Your task to perform on an android device: Show me productivity apps on the Play Store Image 0: 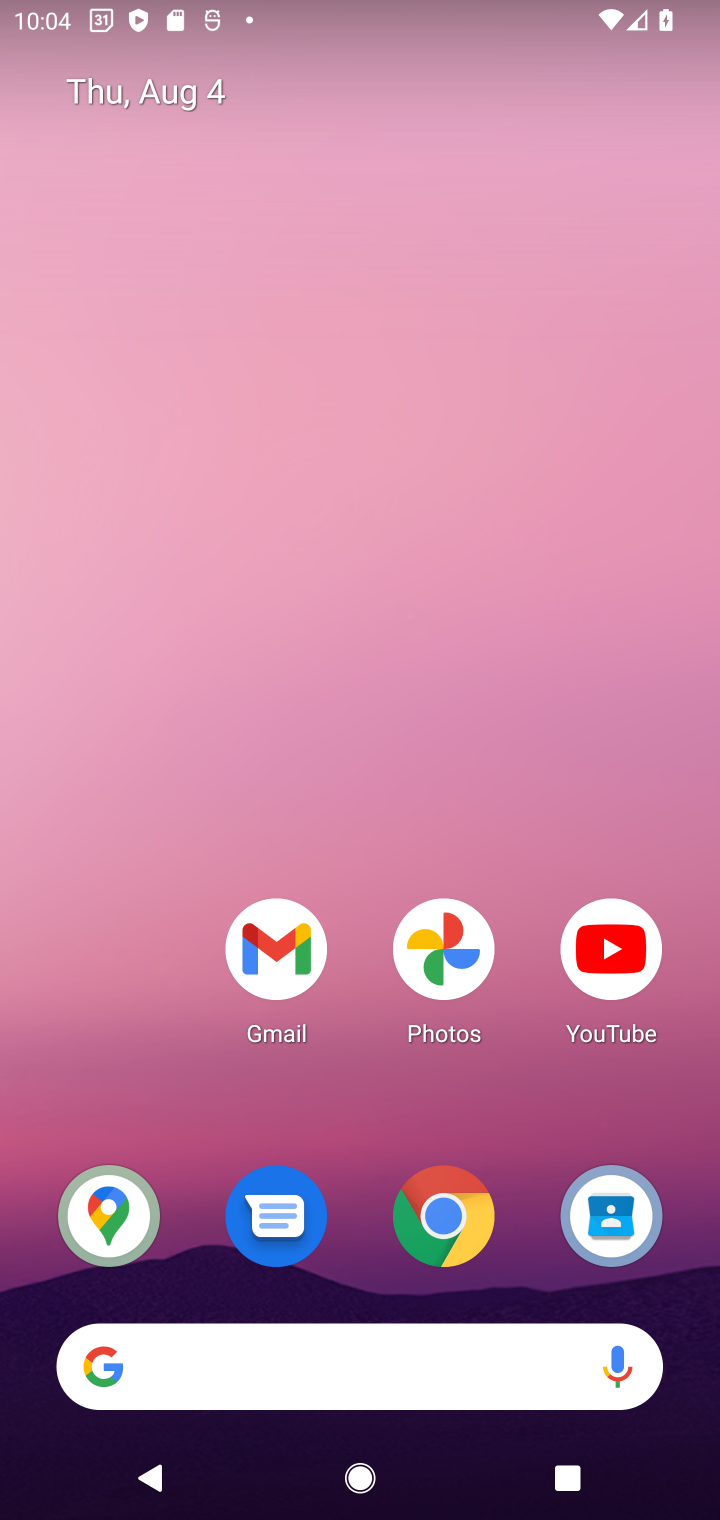
Step 0: drag from (387, 1346) to (438, 269)
Your task to perform on an android device: Show me productivity apps on the Play Store Image 1: 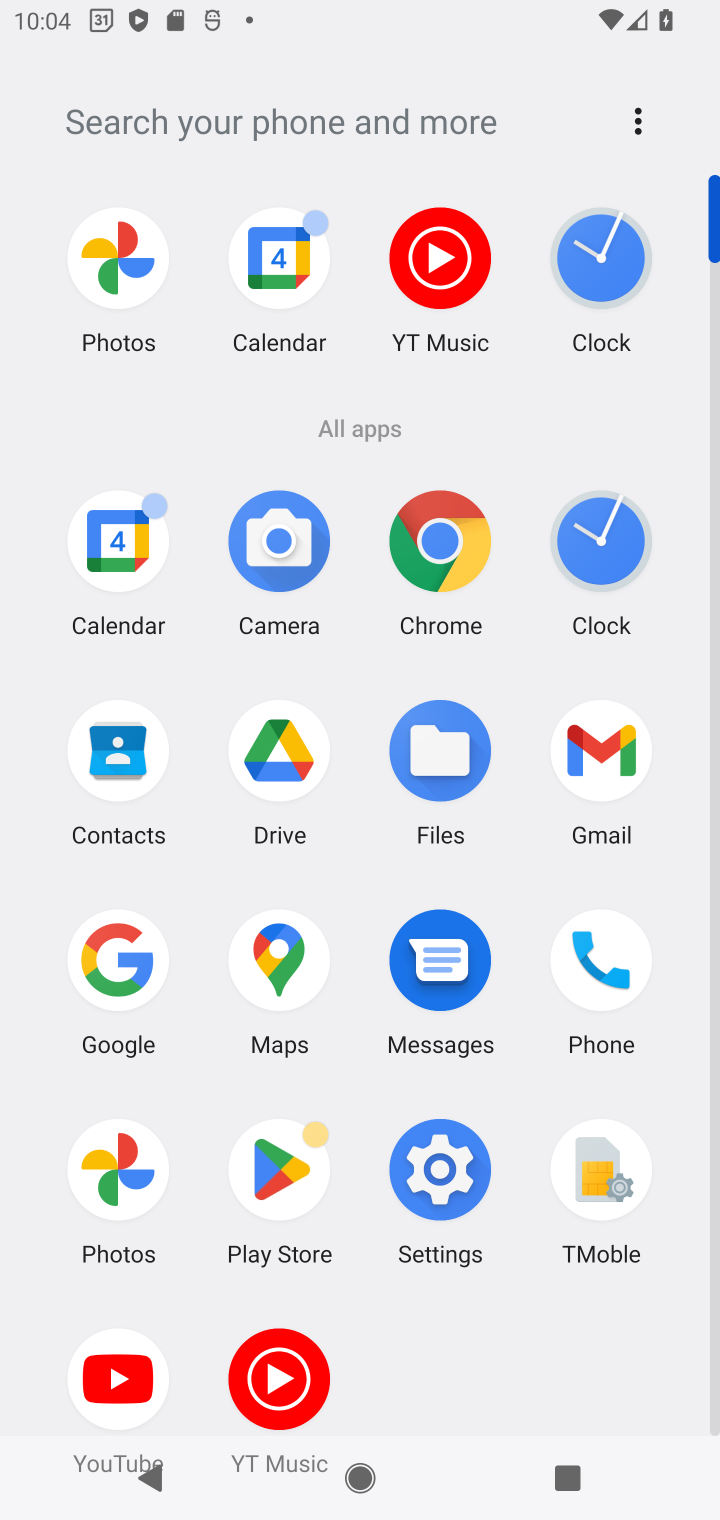
Step 1: click (278, 1181)
Your task to perform on an android device: Show me productivity apps on the Play Store Image 2: 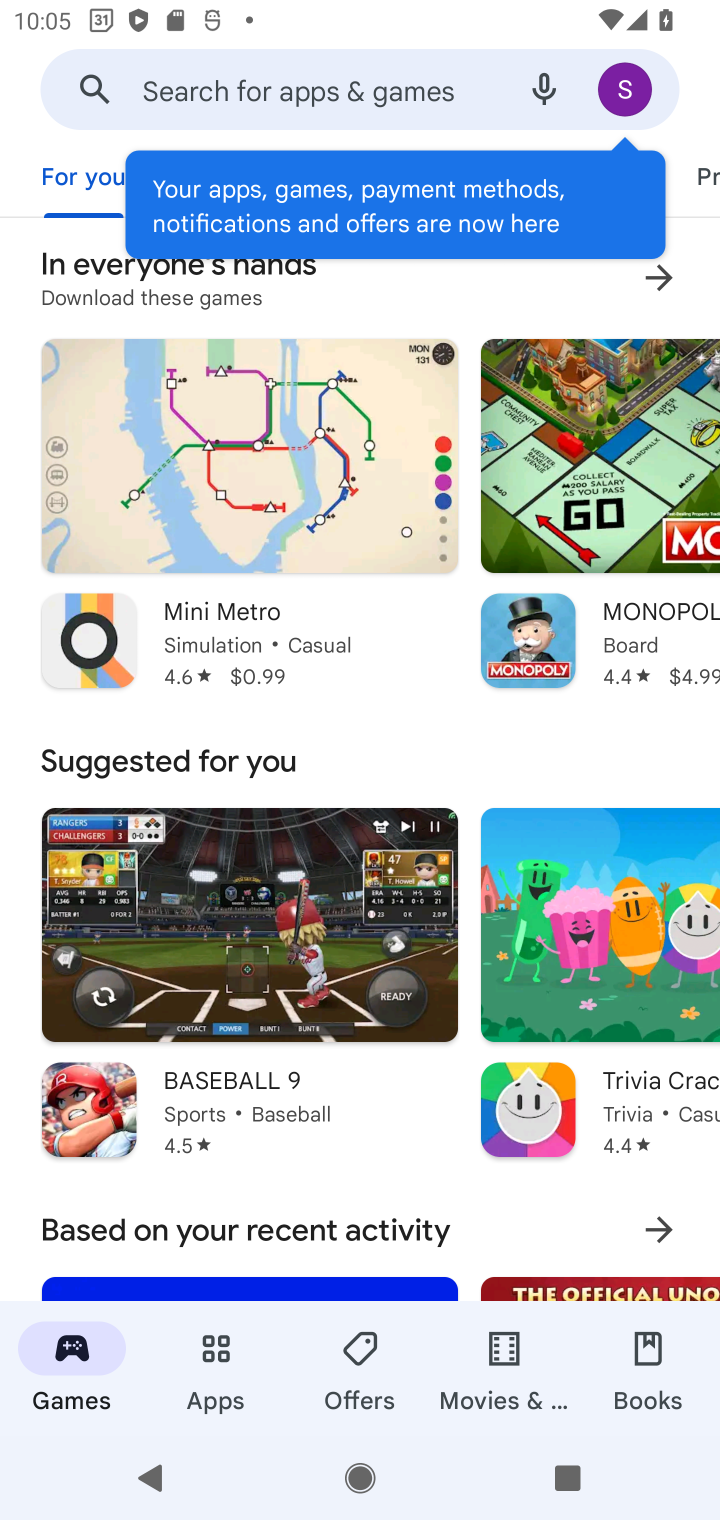
Step 2: click (238, 1358)
Your task to perform on an android device: Show me productivity apps on the Play Store Image 3: 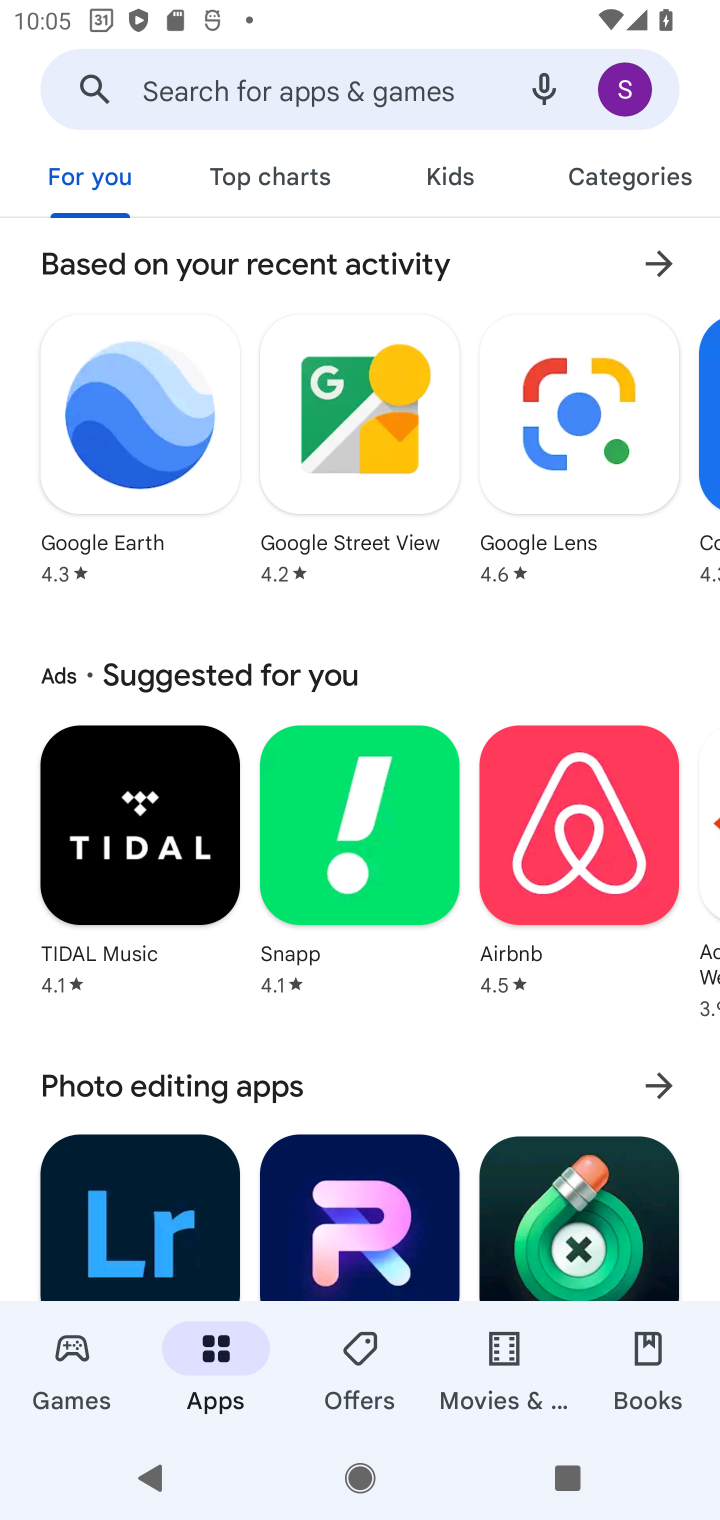
Step 3: click (652, 171)
Your task to perform on an android device: Show me productivity apps on the Play Store Image 4: 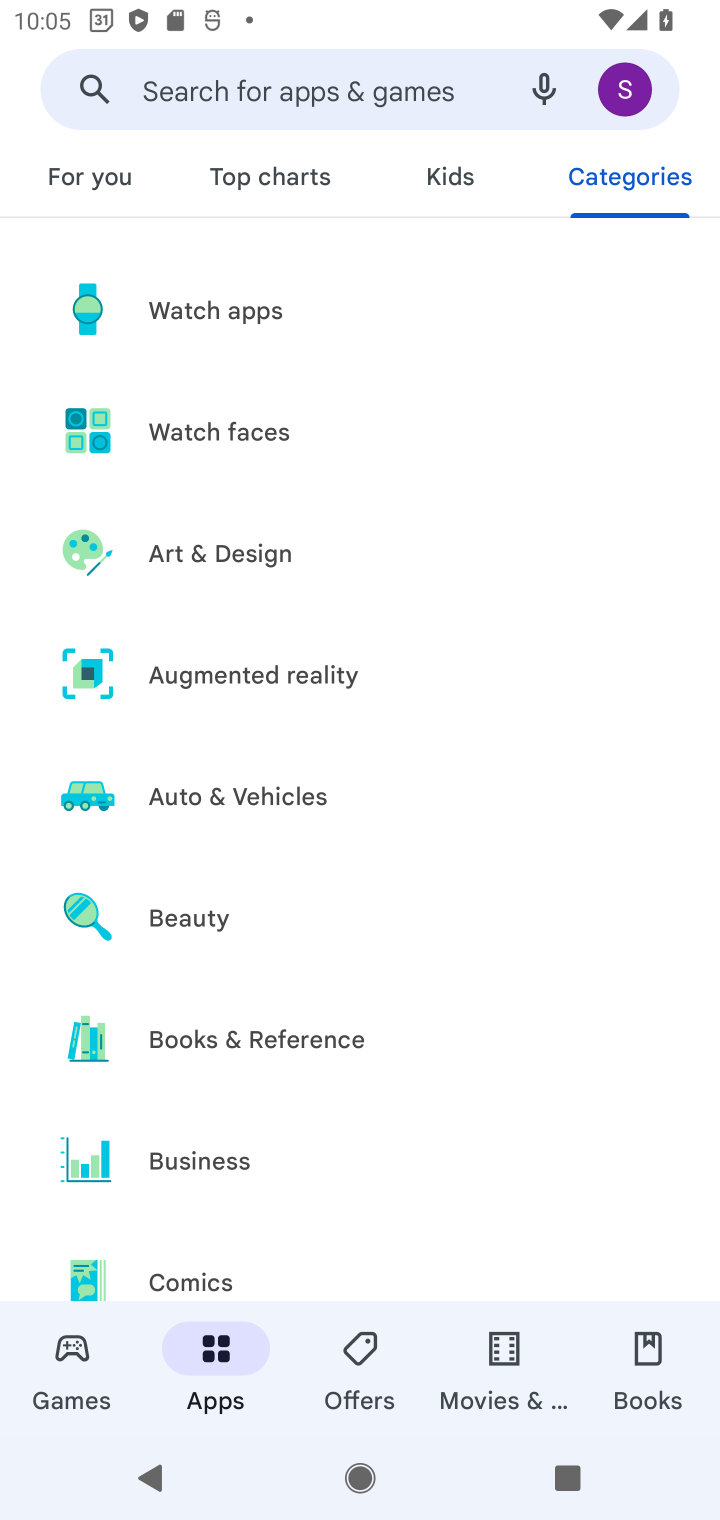
Step 4: drag from (242, 1095) to (272, 847)
Your task to perform on an android device: Show me productivity apps on the Play Store Image 5: 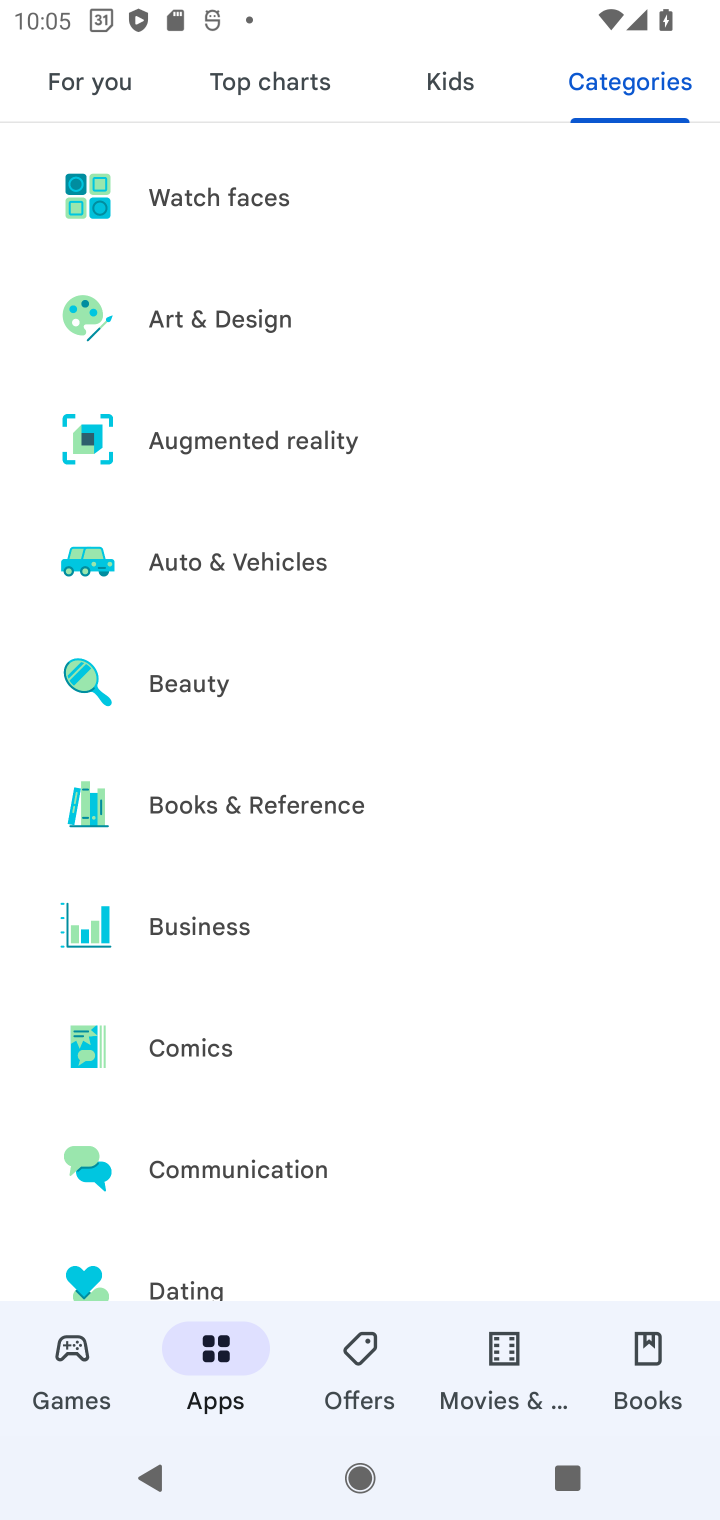
Step 5: drag from (240, 1184) to (301, 914)
Your task to perform on an android device: Show me productivity apps on the Play Store Image 6: 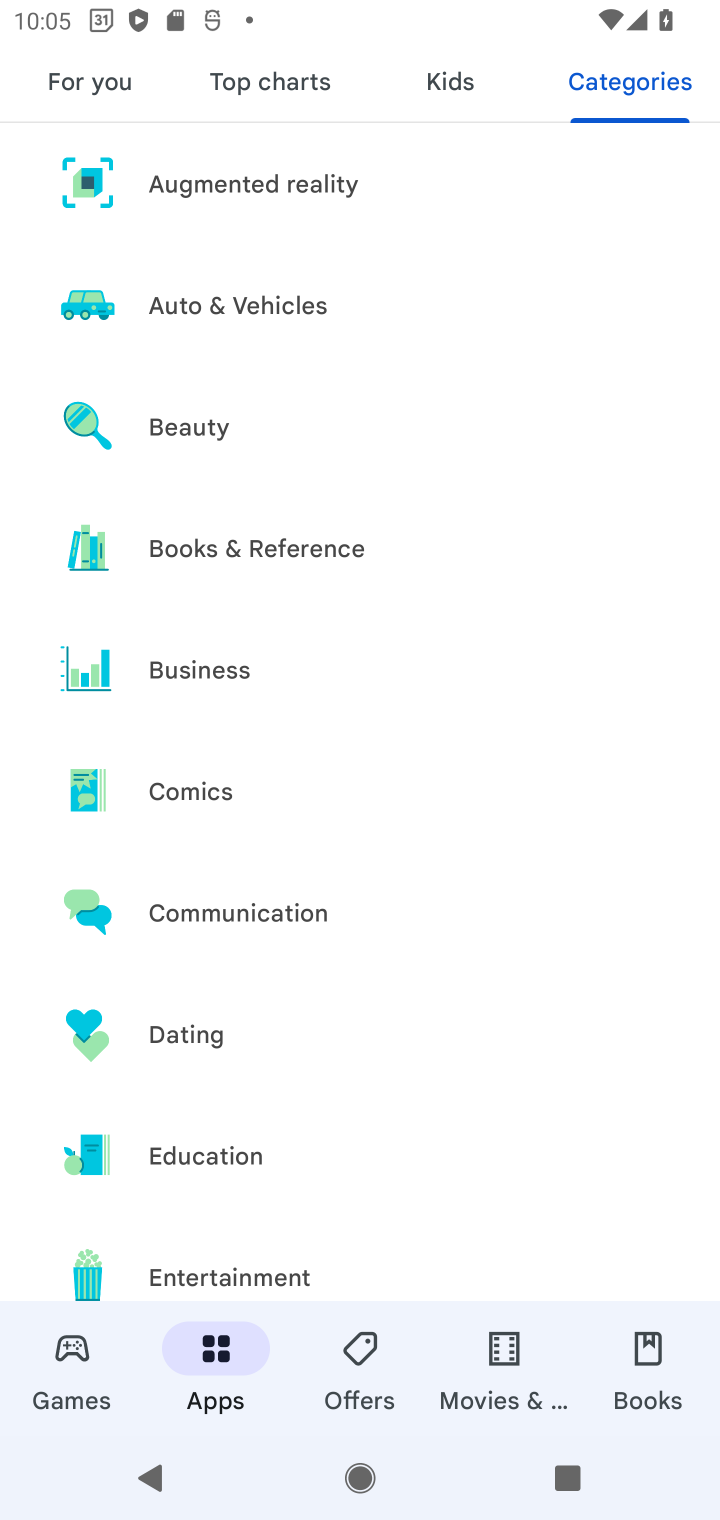
Step 6: drag from (205, 1201) to (280, 945)
Your task to perform on an android device: Show me productivity apps on the Play Store Image 7: 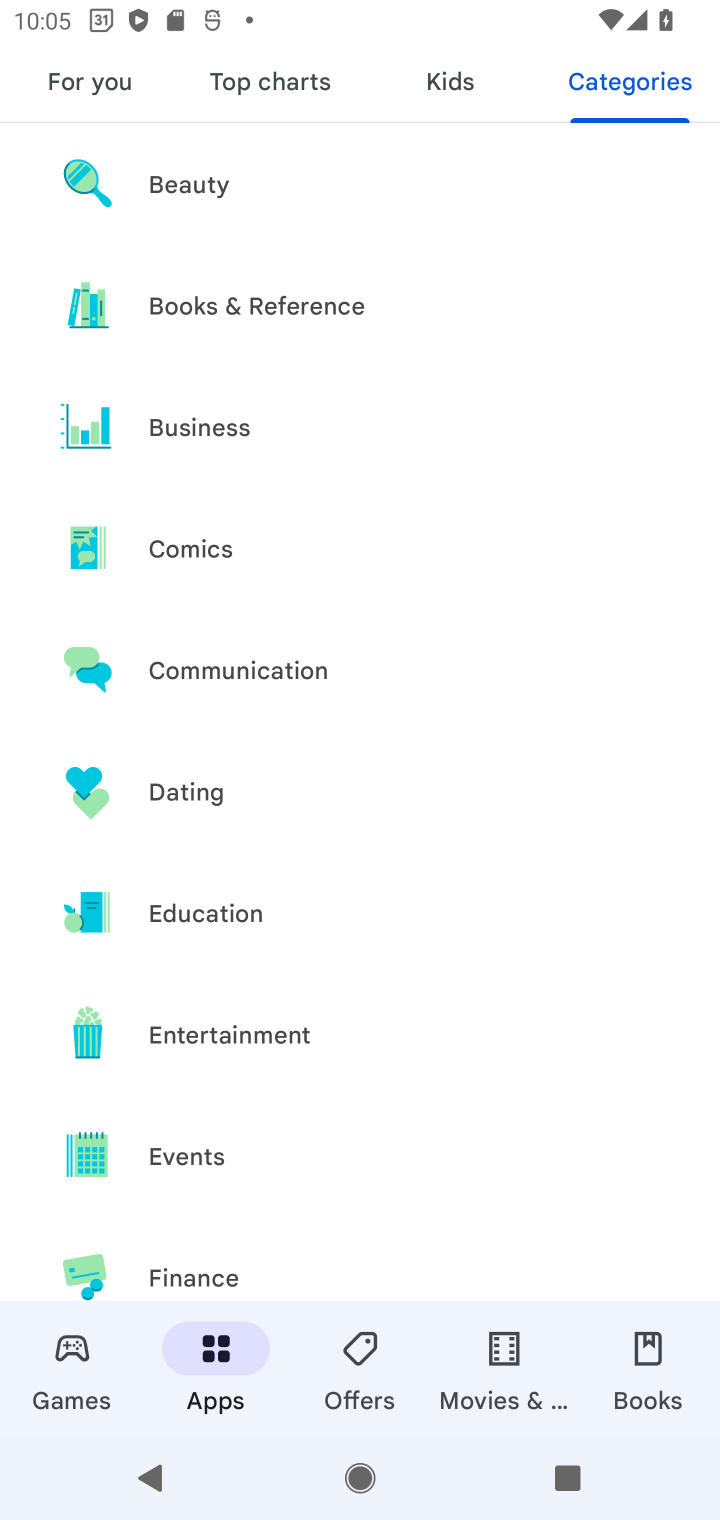
Step 7: drag from (202, 1214) to (317, 978)
Your task to perform on an android device: Show me productivity apps on the Play Store Image 8: 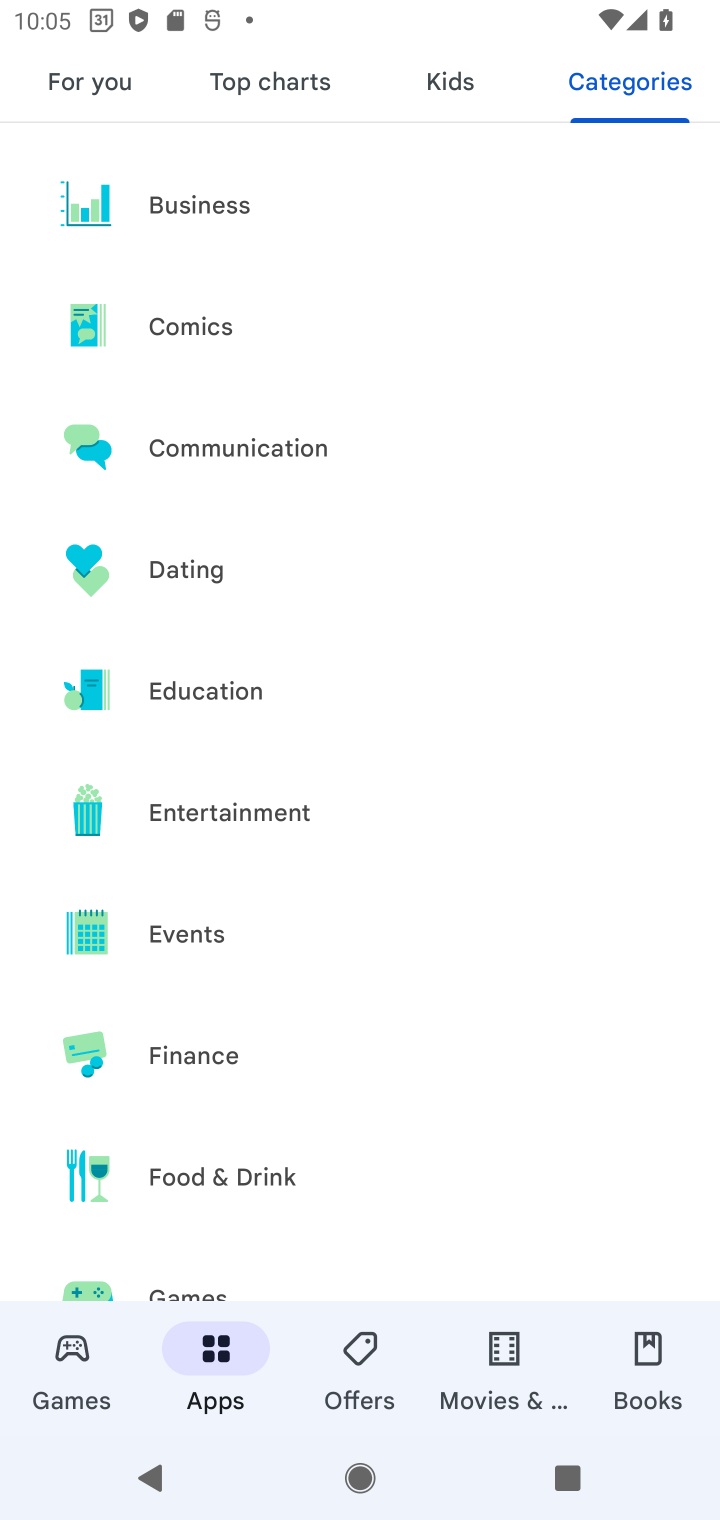
Step 8: drag from (267, 1120) to (332, 844)
Your task to perform on an android device: Show me productivity apps on the Play Store Image 9: 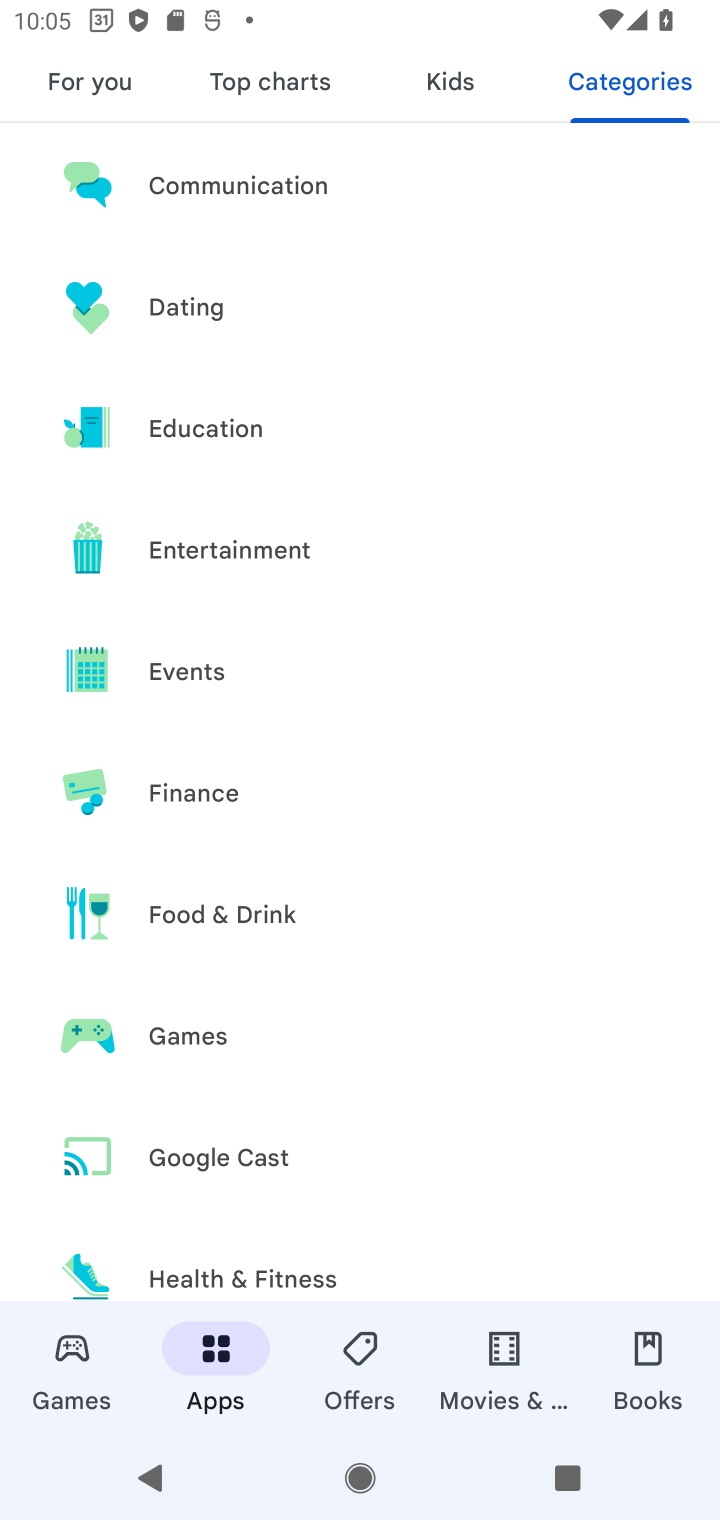
Step 9: drag from (207, 1128) to (405, 866)
Your task to perform on an android device: Show me productivity apps on the Play Store Image 10: 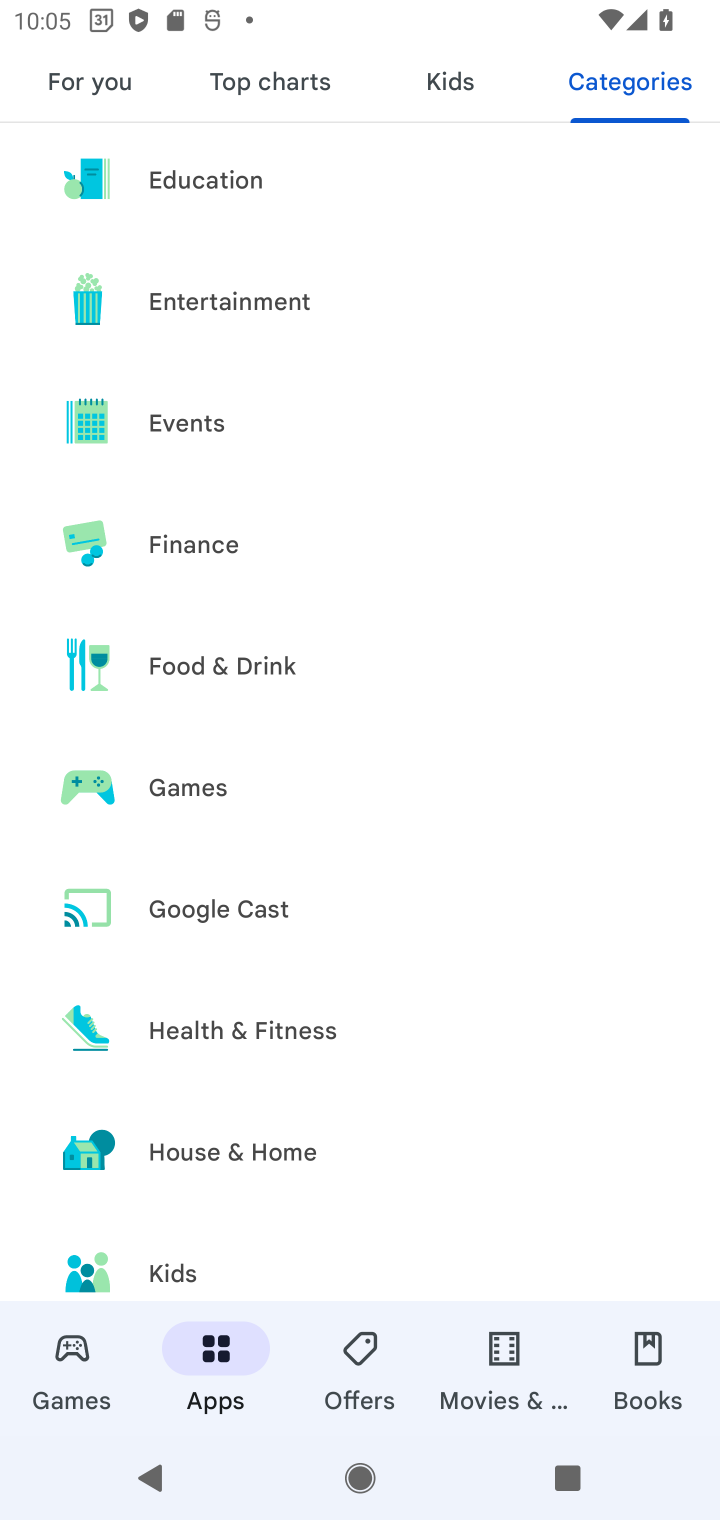
Step 10: drag from (212, 1101) to (328, 912)
Your task to perform on an android device: Show me productivity apps on the Play Store Image 11: 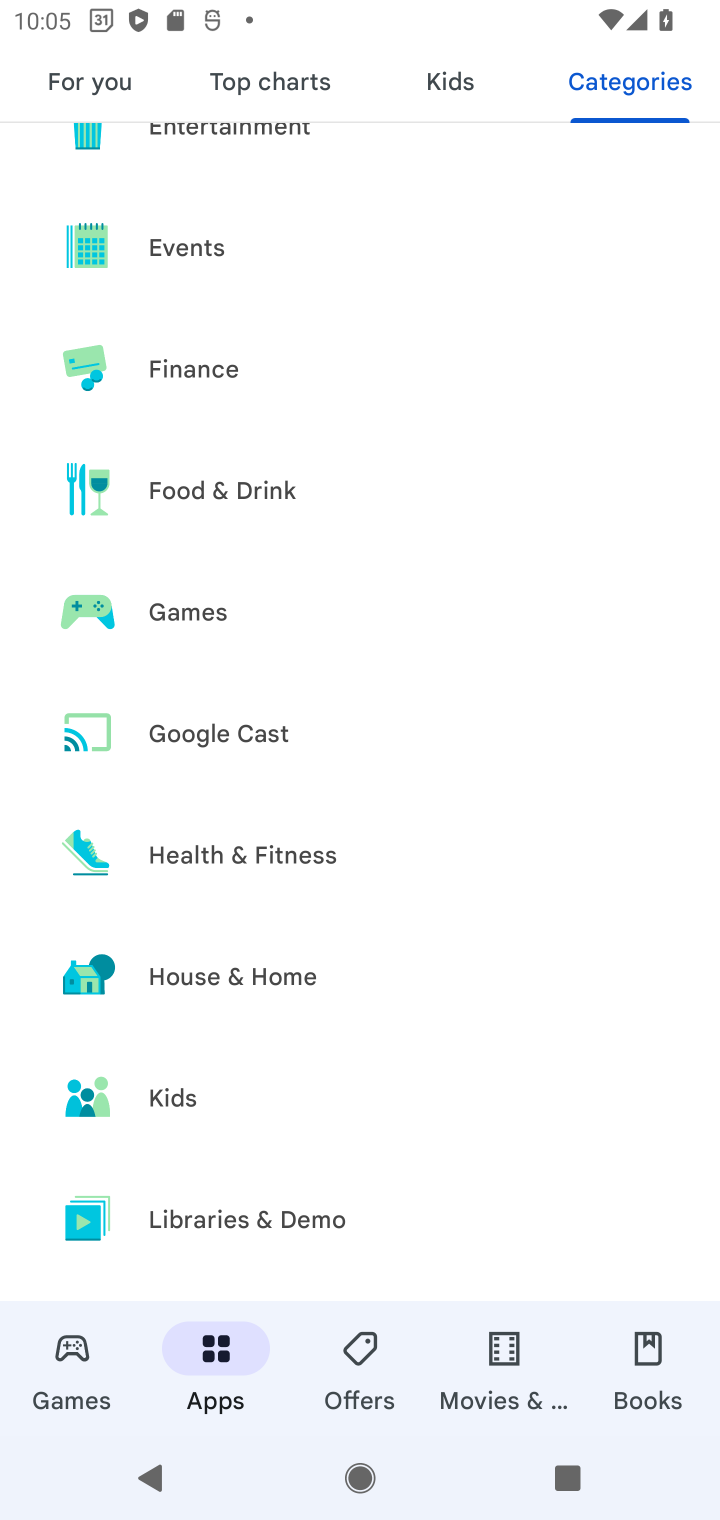
Step 11: drag from (187, 1164) to (261, 906)
Your task to perform on an android device: Show me productivity apps on the Play Store Image 12: 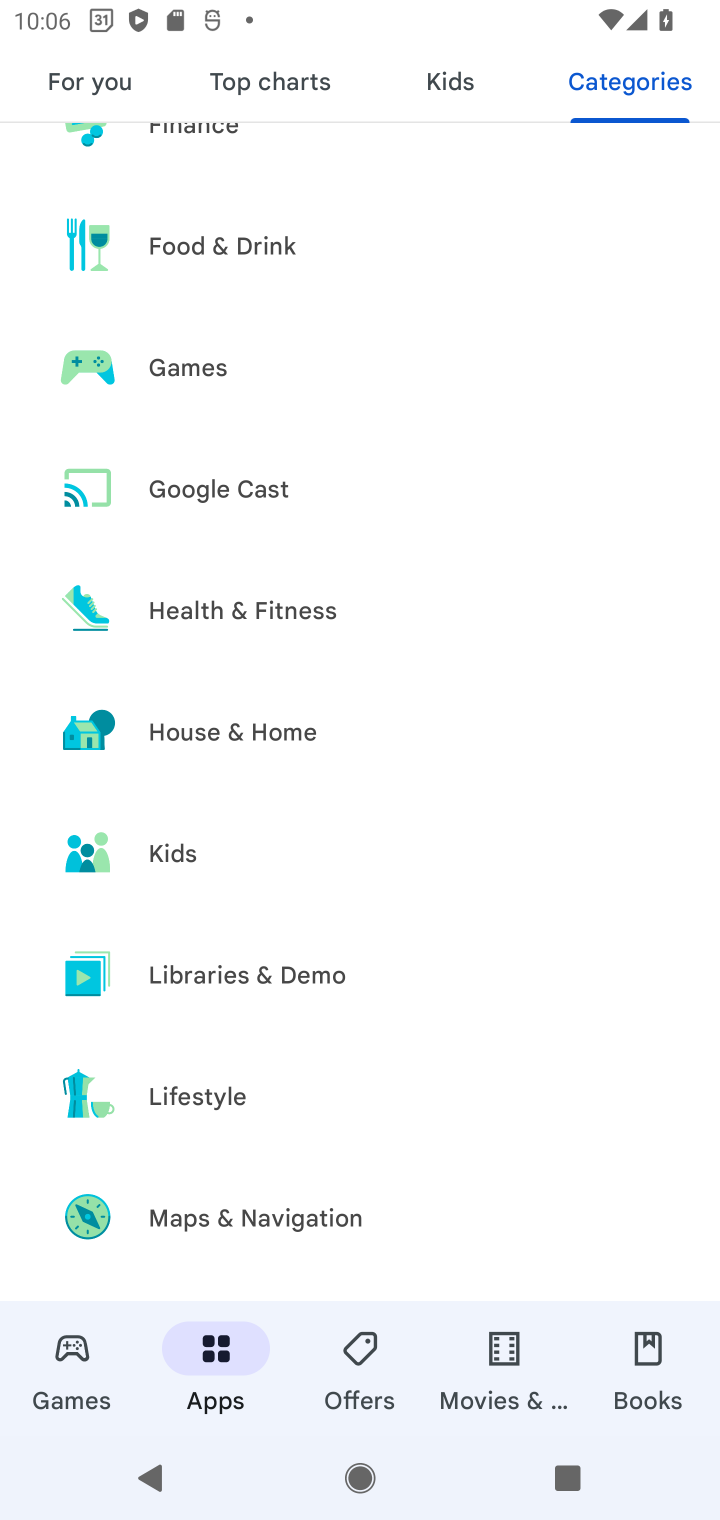
Step 12: drag from (192, 1041) to (247, 772)
Your task to perform on an android device: Show me productivity apps on the Play Store Image 13: 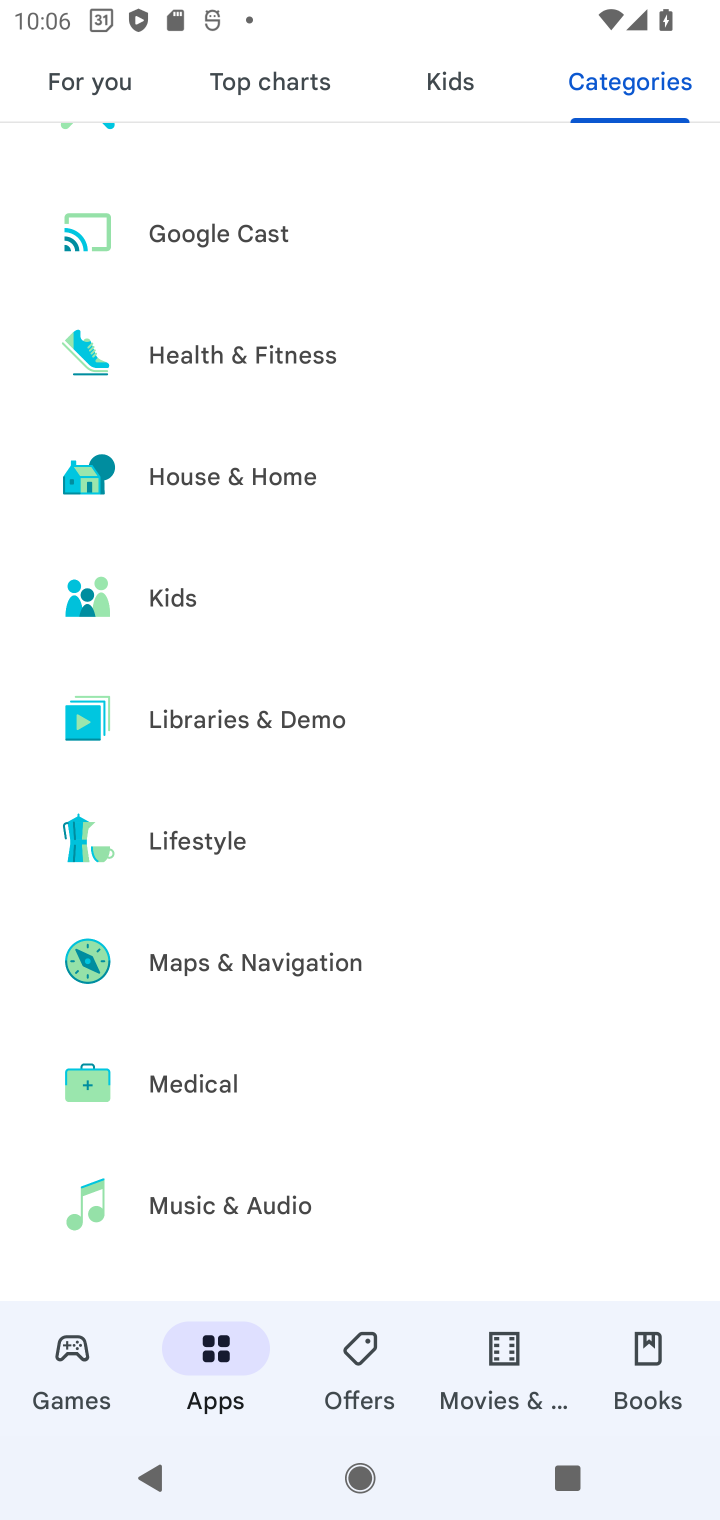
Step 13: drag from (172, 1028) to (257, 773)
Your task to perform on an android device: Show me productivity apps on the Play Store Image 14: 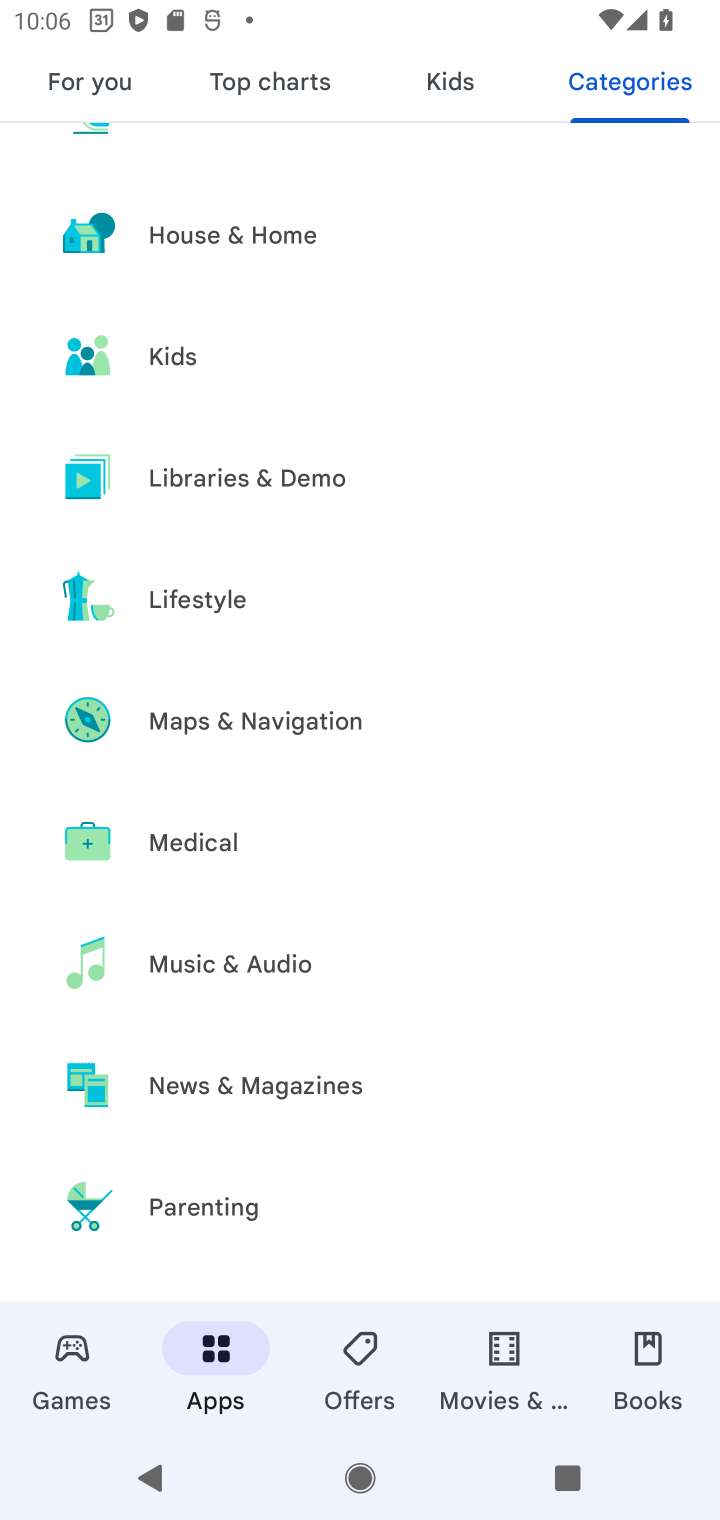
Step 14: drag from (215, 1174) to (247, 891)
Your task to perform on an android device: Show me productivity apps on the Play Store Image 15: 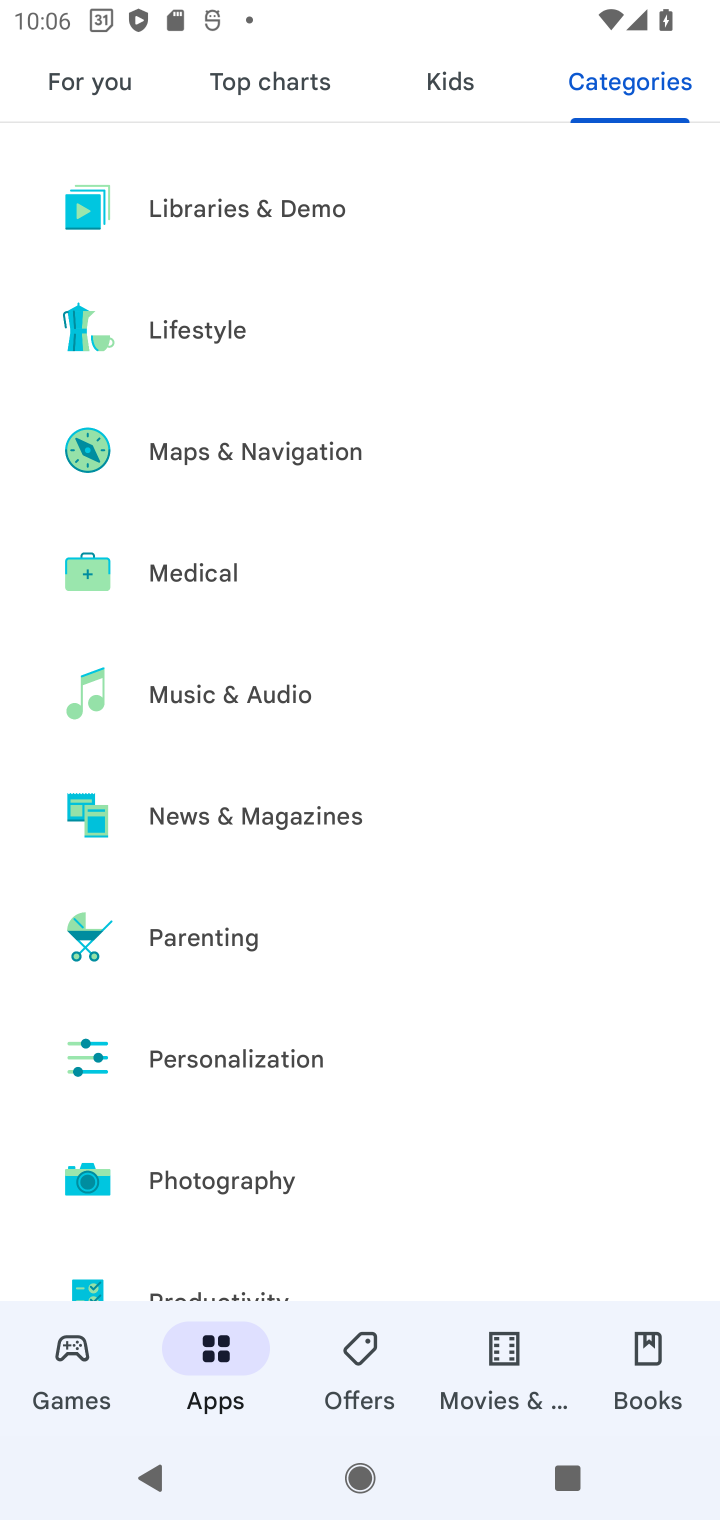
Step 15: drag from (186, 1135) to (267, 907)
Your task to perform on an android device: Show me productivity apps on the Play Store Image 16: 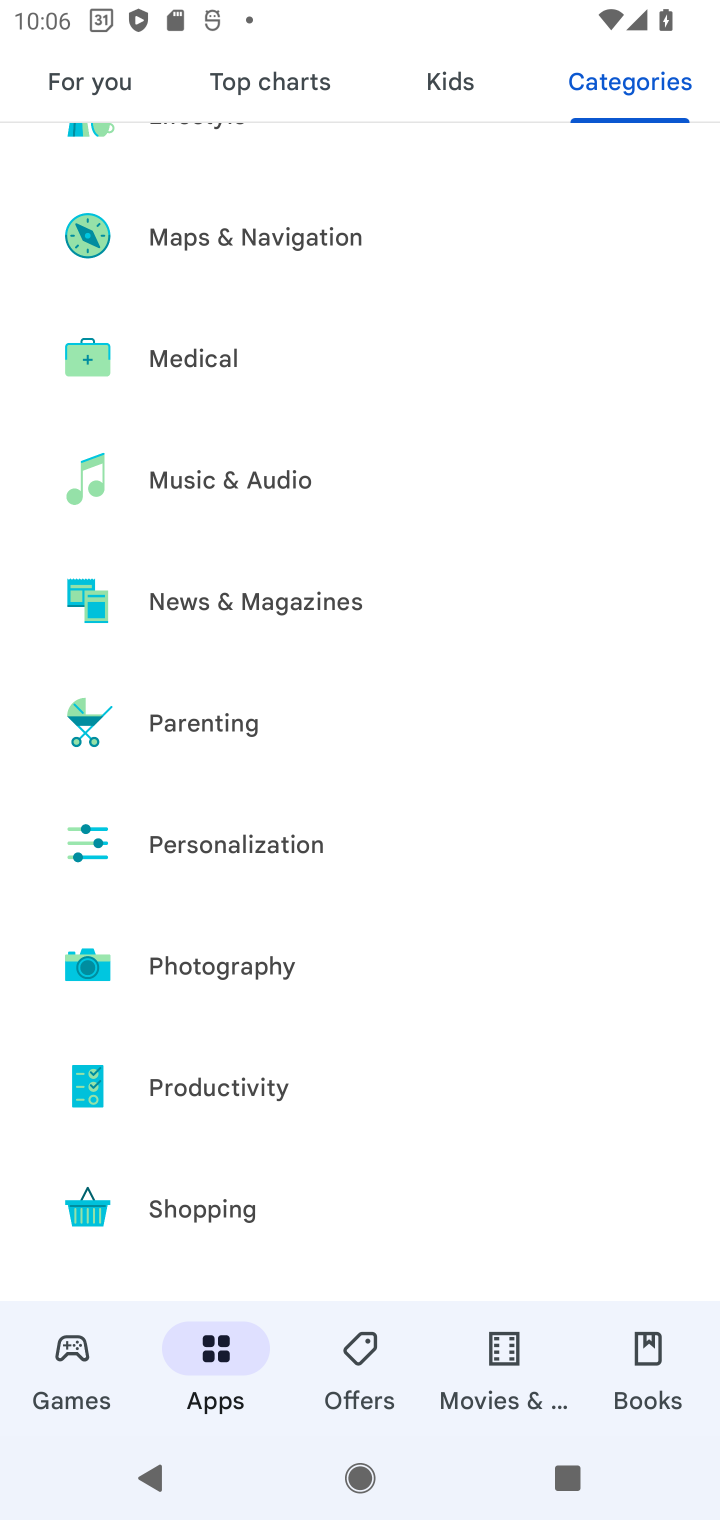
Step 16: drag from (201, 1113) to (341, 914)
Your task to perform on an android device: Show me productivity apps on the Play Store Image 17: 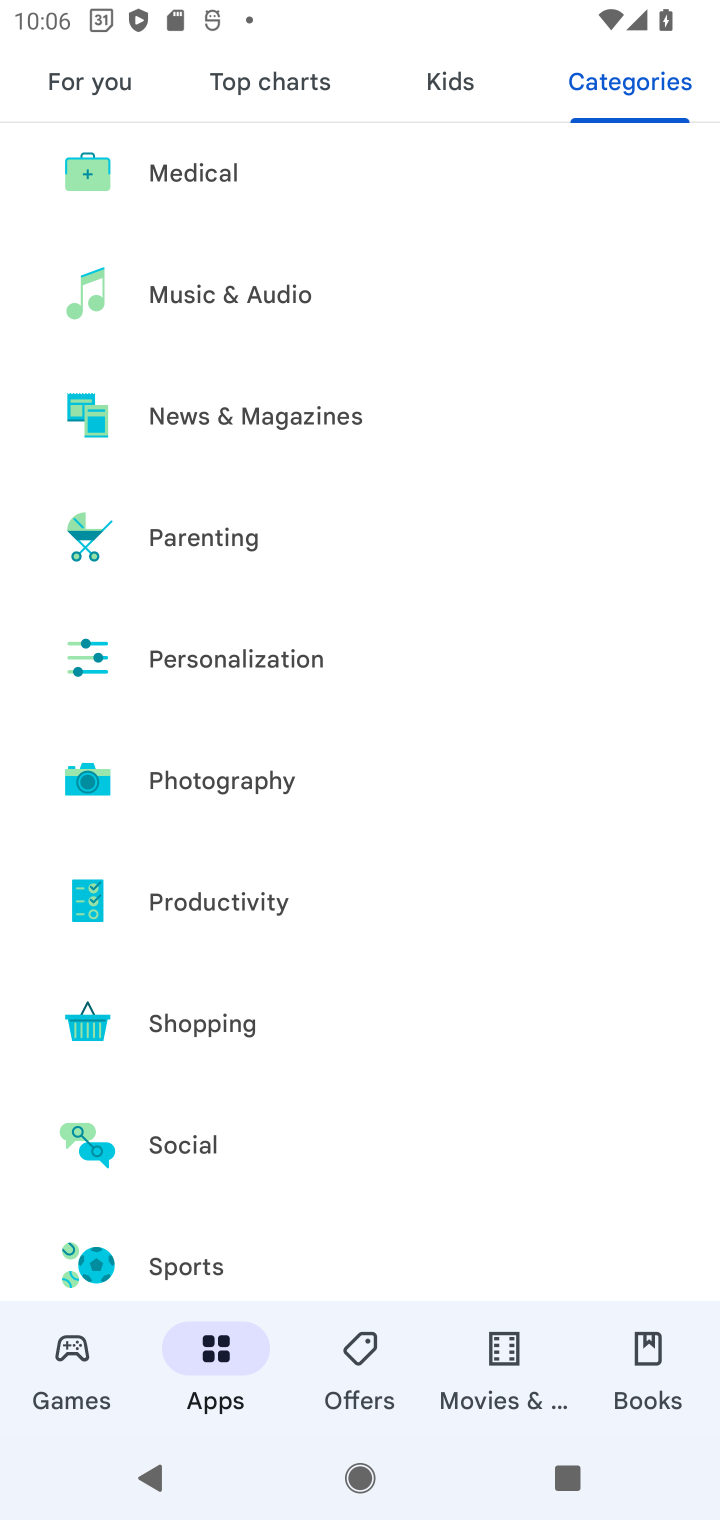
Step 17: click (229, 906)
Your task to perform on an android device: Show me productivity apps on the Play Store Image 18: 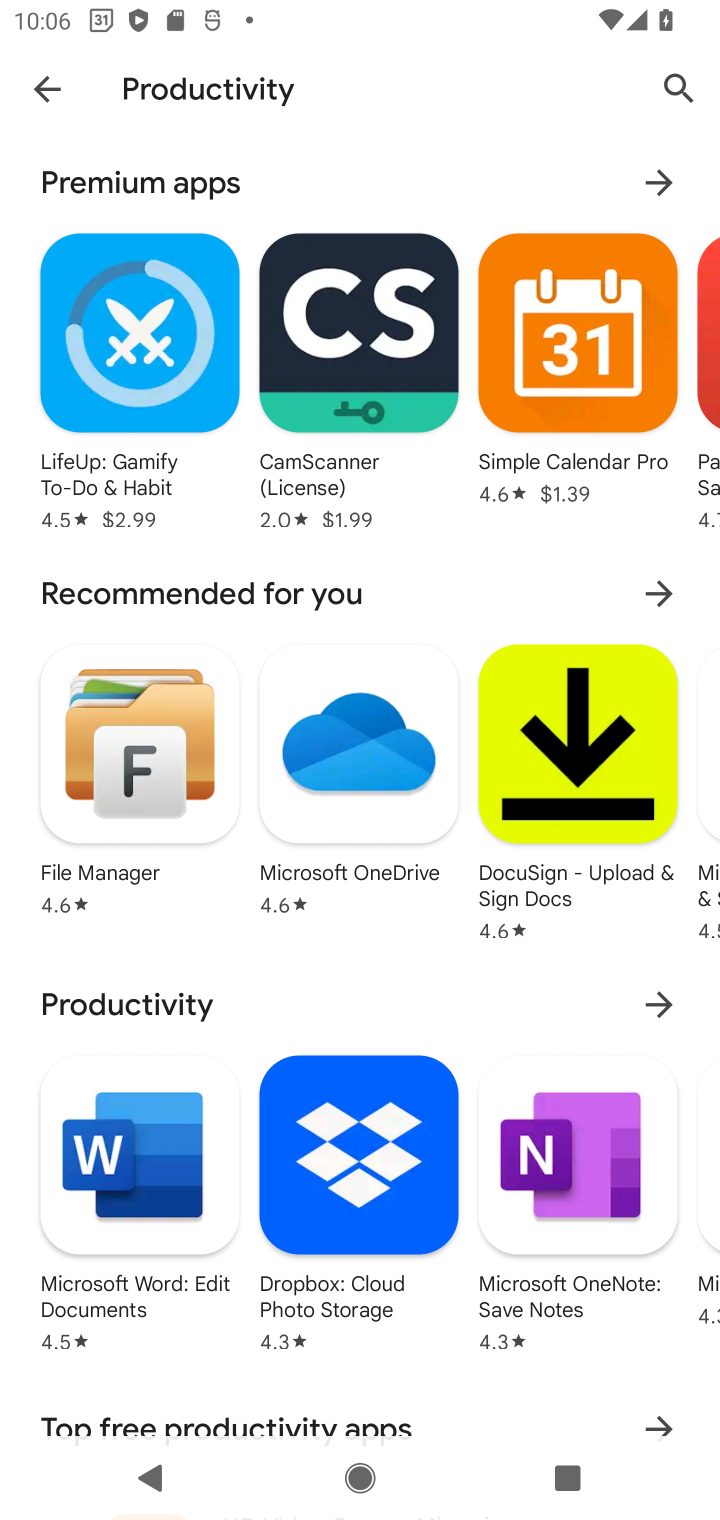
Step 18: task complete